Your task to perform on an android device: Search for Italian restaurants on Maps Image 0: 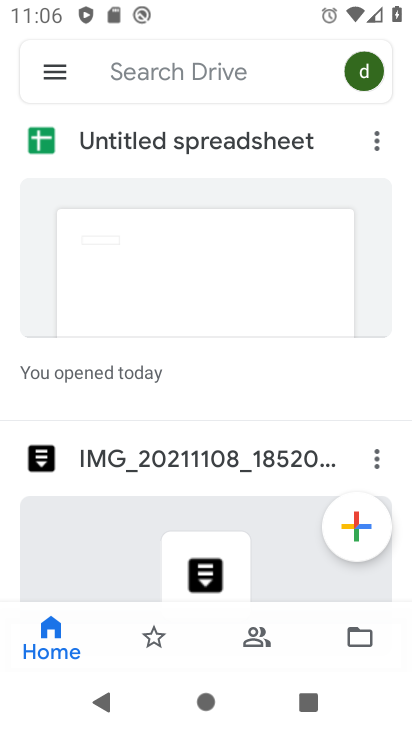
Step 0: press home button
Your task to perform on an android device: Search for Italian restaurants on Maps Image 1: 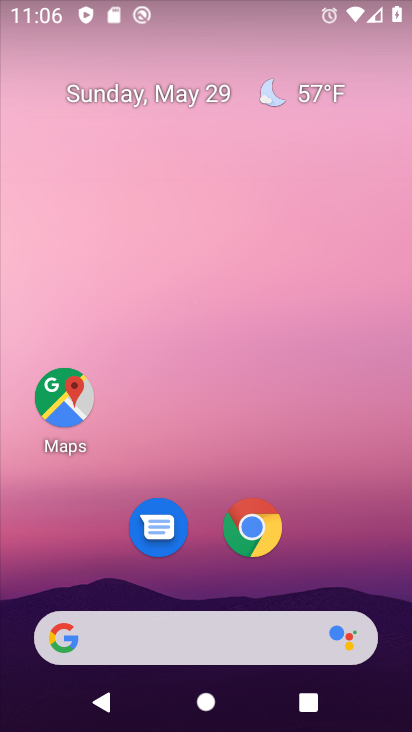
Step 1: click (60, 394)
Your task to perform on an android device: Search for Italian restaurants on Maps Image 2: 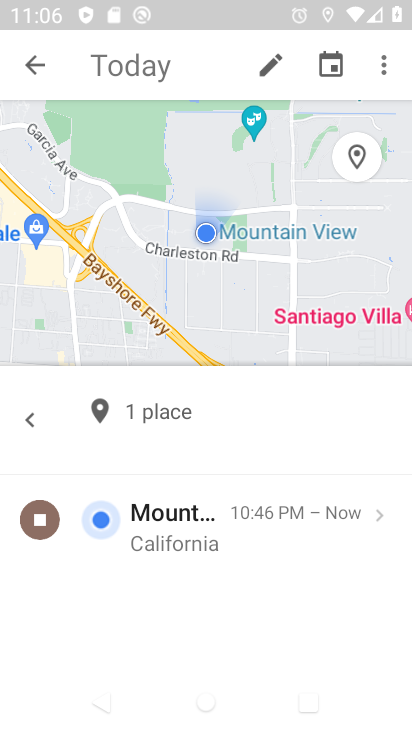
Step 2: click (47, 68)
Your task to perform on an android device: Search for Italian restaurants on Maps Image 3: 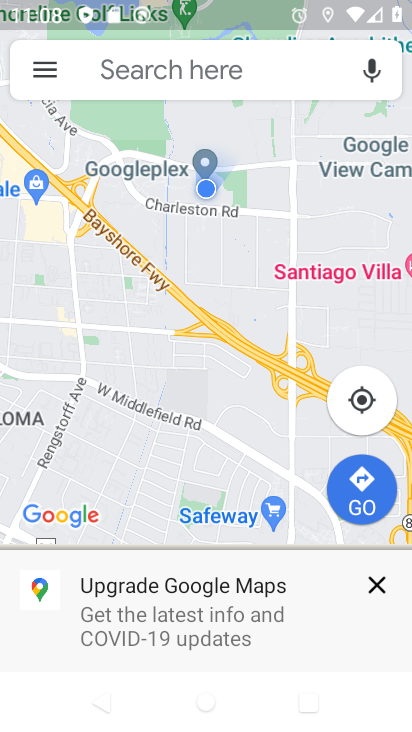
Step 3: click (160, 60)
Your task to perform on an android device: Search for Italian restaurants on Maps Image 4: 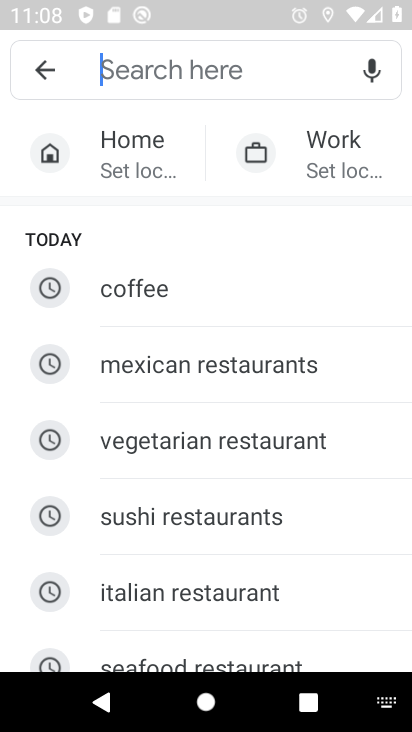
Step 4: click (148, 581)
Your task to perform on an android device: Search for Italian restaurants on Maps Image 5: 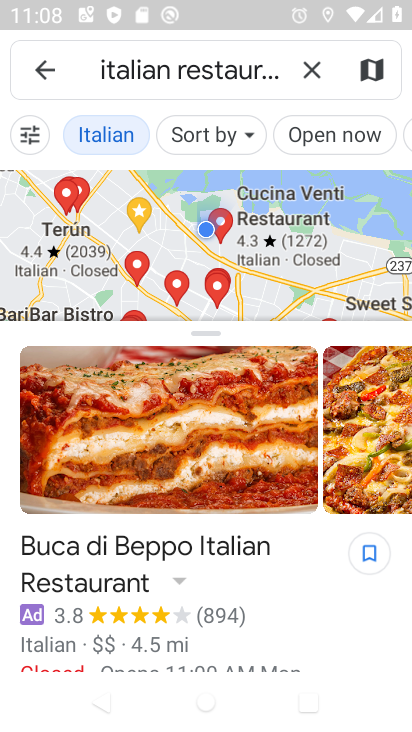
Step 5: task complete